Your task to perform on an android device: toggle show notifications on the lock screen Image 0: 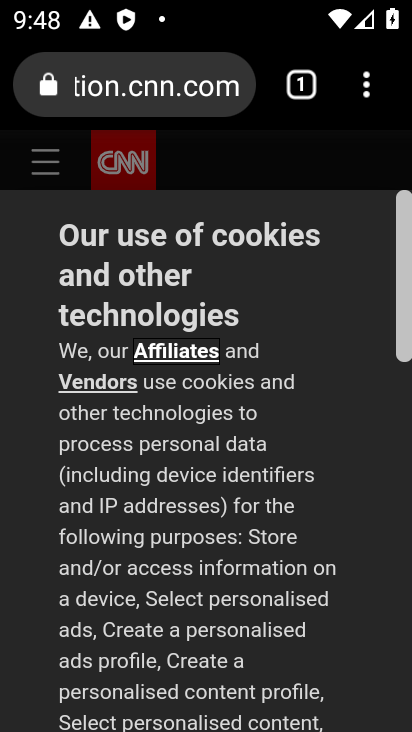
Step 0: task complete